Your task to perform on an android device: turn off smart reply in the gmail app Image 0: 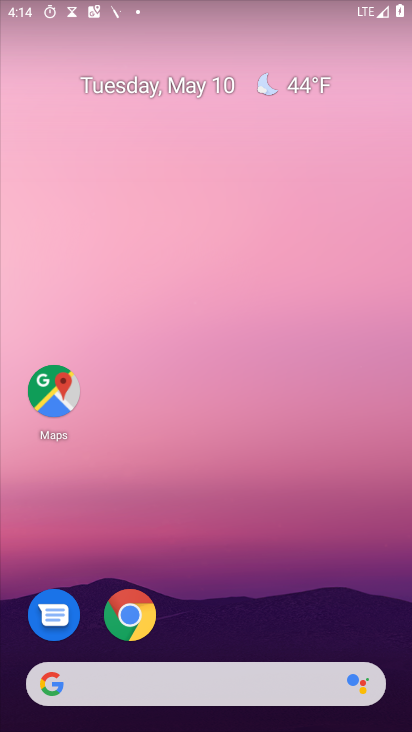
Step 0: drag from (239, 662) to (227, 1)
Your task to perform on an android device: turn off smart reply in the gmail app Image 1: 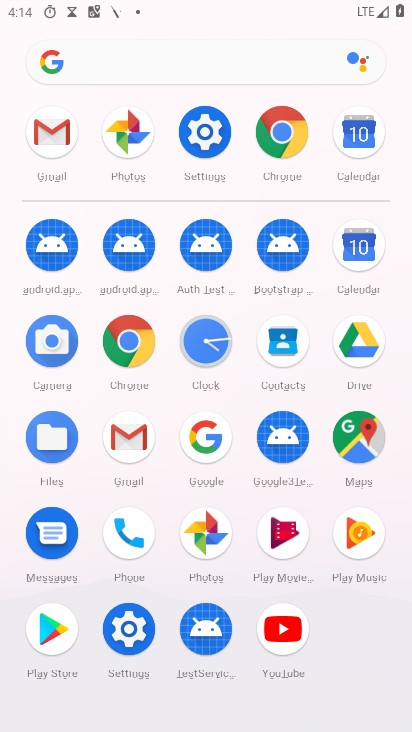
Step 1: click (134, 446)
Your task to perform on an android device: turn off smart reply in the gmail app Image 2: 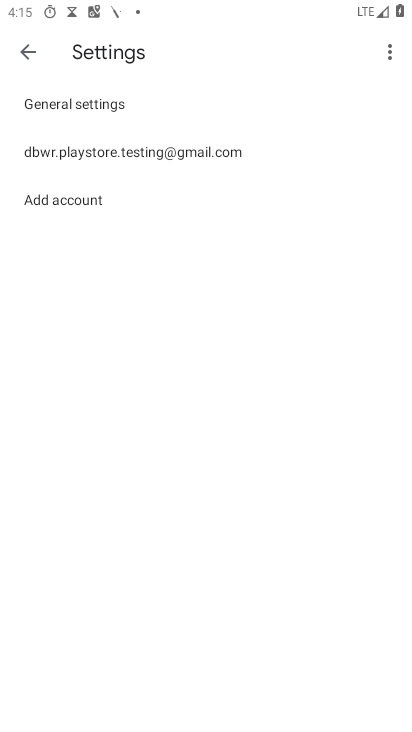
Step 2: click (166, 148)
Your task to perform on an android device: turn off smart reply in the gmail app Image 3: 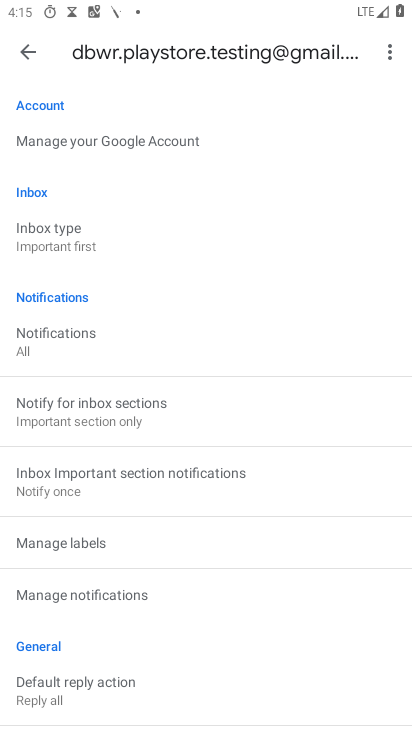
Step 3: drag from (275, 678) to (284, 50)
Your task to perform on an android device: turn off smart reply in the gmail app Image 4: 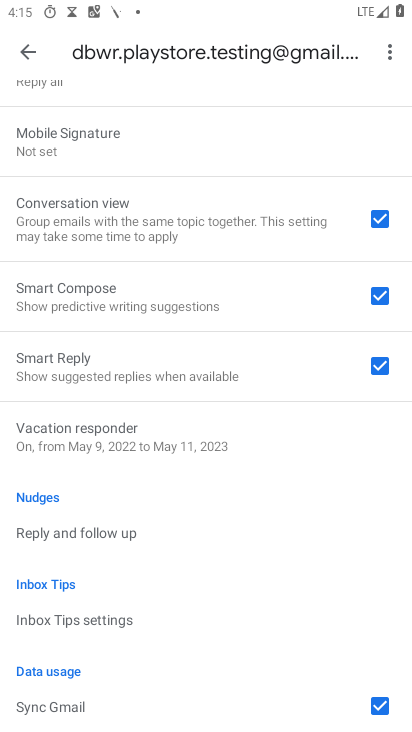
Step 4: click (371, 358)
Your task to perform on an android device: turn off smart reply in the gmail app Image 5: 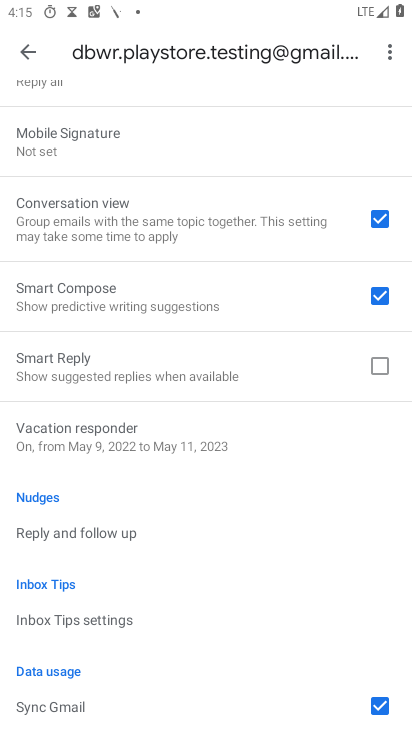
Step 5: task complete